Your task to perform on an android device: When is my next appointment? Image 0: 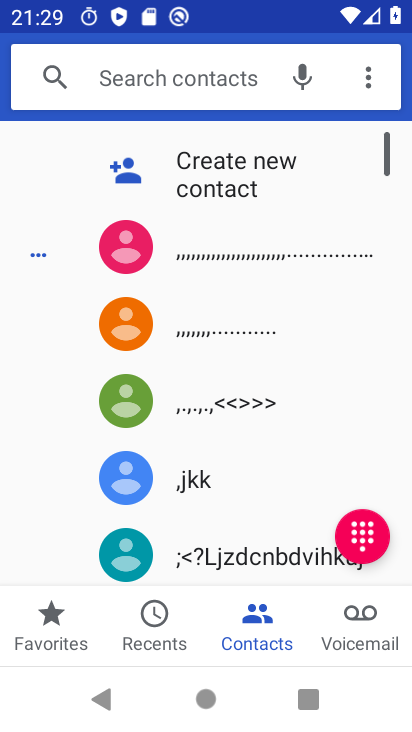
Step 0: press home button
Your task to perform on an android device: When is my next appointment? Image 1: 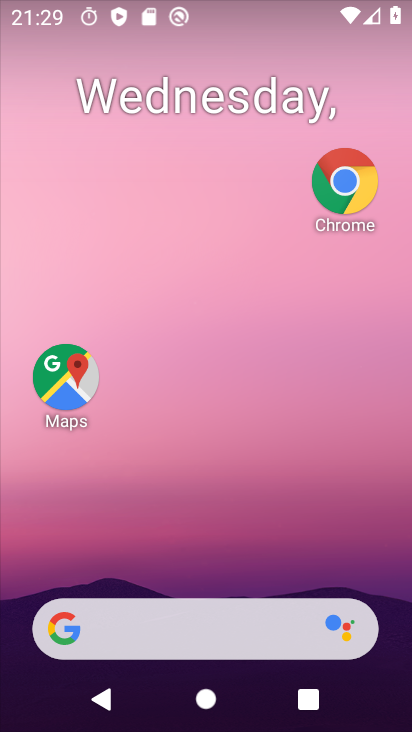
Step 1: drag from (213, 669) to (231, 310)
Your task to perform on an android device: When is my next appointment? Image 2: 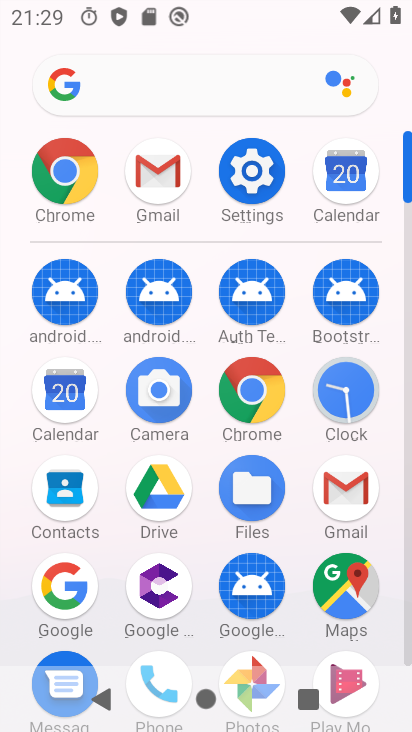
Step 2: click (71, 378)
Your task to perform on an android device: When is my next appointment? Image 3: 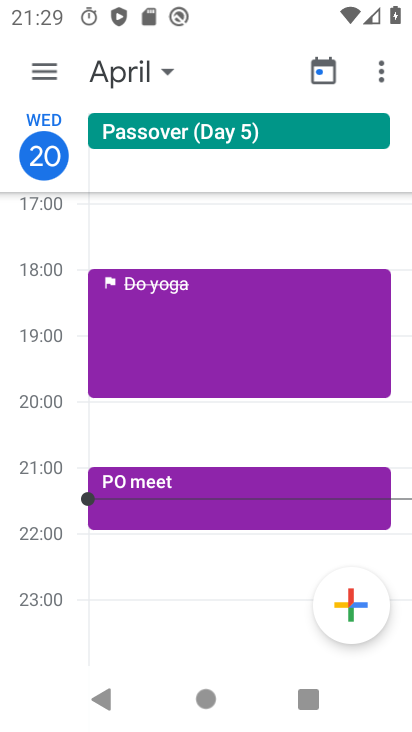
Step 3: click (52, 64)
Your task to perform on an android device: When is my next appointment? Image 4: 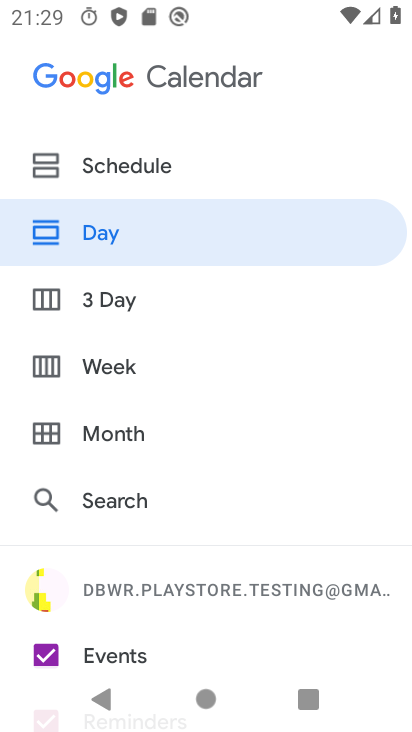
Step 4: click (155, 168)
Your task to perform on an android device: When is my next appointment? Image 5: 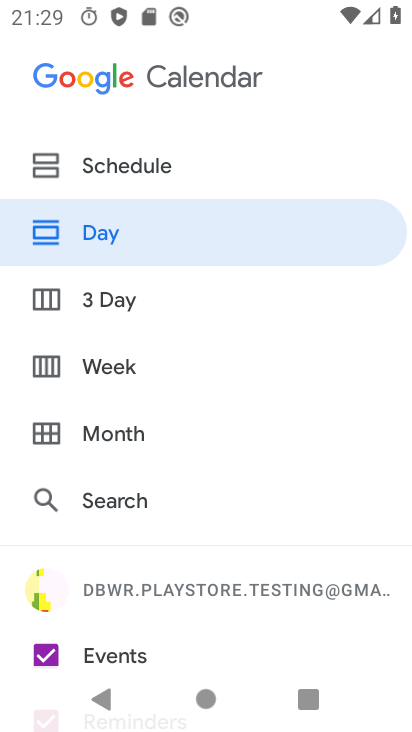
Step 5: click (200, 158)
Your task to perform on an android device: When is my next appointment? Image 6: 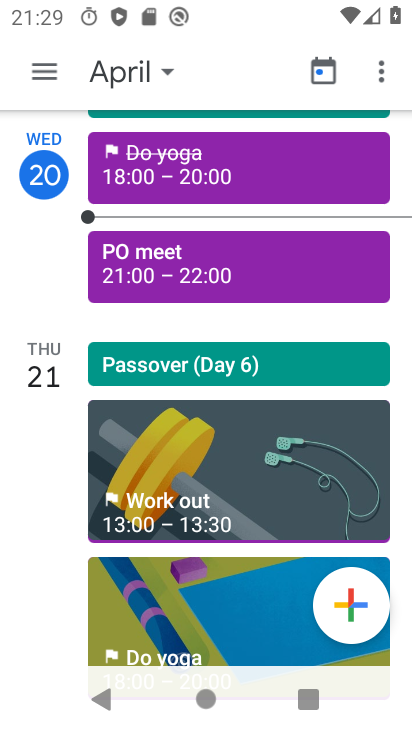
Step 6: task complete